Your task to perform on an android device: empty trash in google photos Image 0: 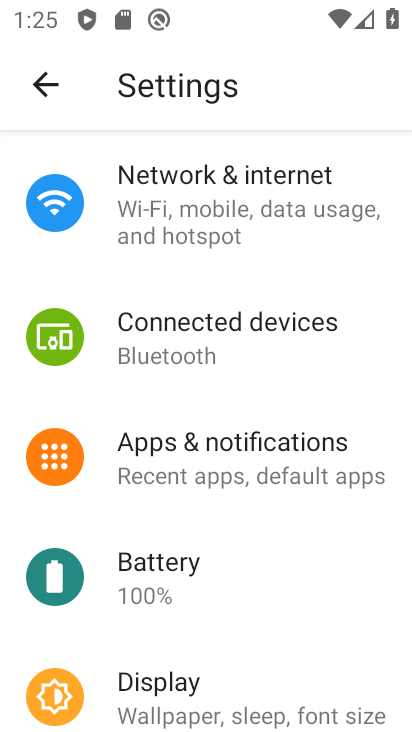
Step 0: press home button
Your task to perform on an android device: empty trash in google photos Image 1: 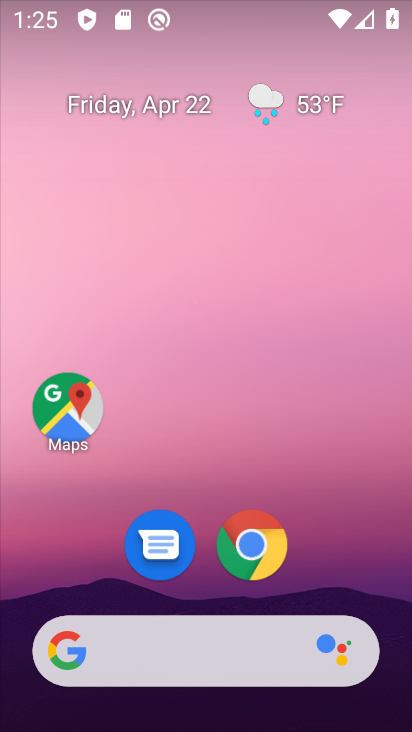
Step 1: drag from (320, 516) to (265, 32)
Your task to perform on an android device: empty trash in google photos Image 2: 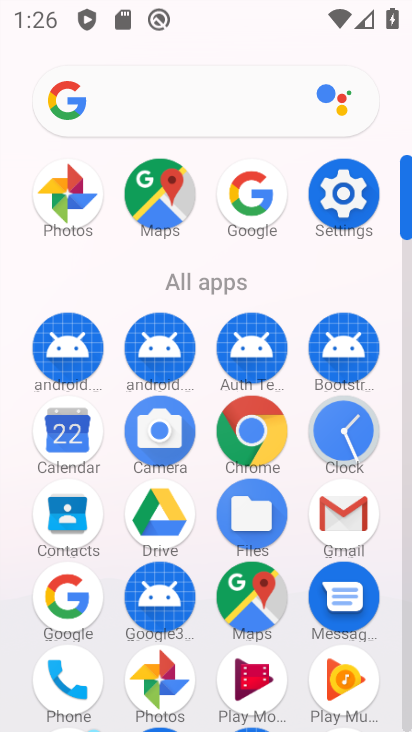
Step 2: click (67, 193)
Your task to perform on an android device: empty trash in google photos Image 3: 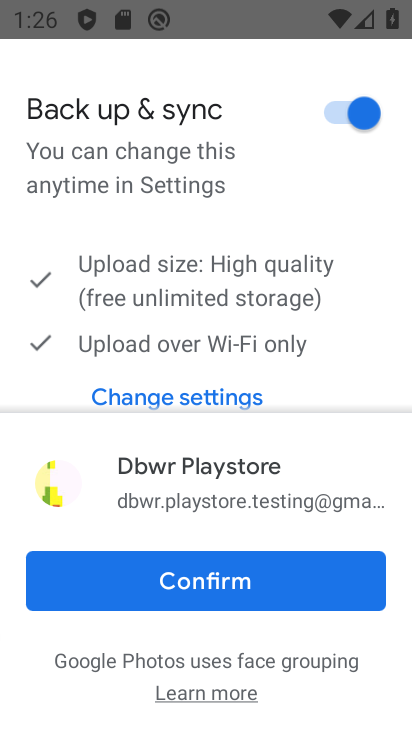
Step 3: click (232, 578)
Your task to perform on an android device: empty trash in google photos Image 4: 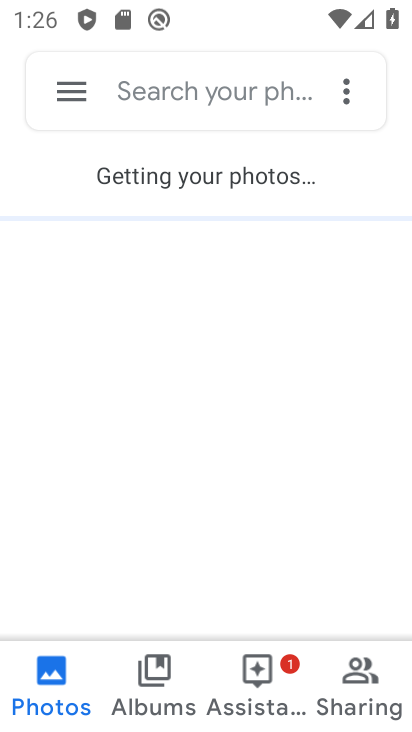
Step 4: click (64, 94)
Your task to perform on an android device: empty trash in google photos Image 5: 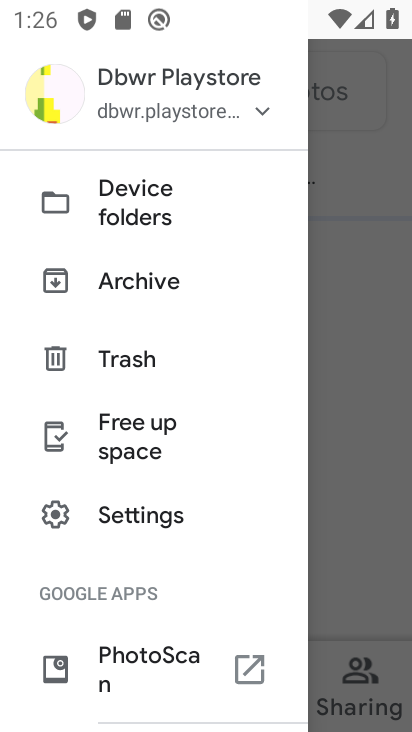
Step 5: click (133, 357)
Your task to perform on an android device: empty trash in google photos Image 6: 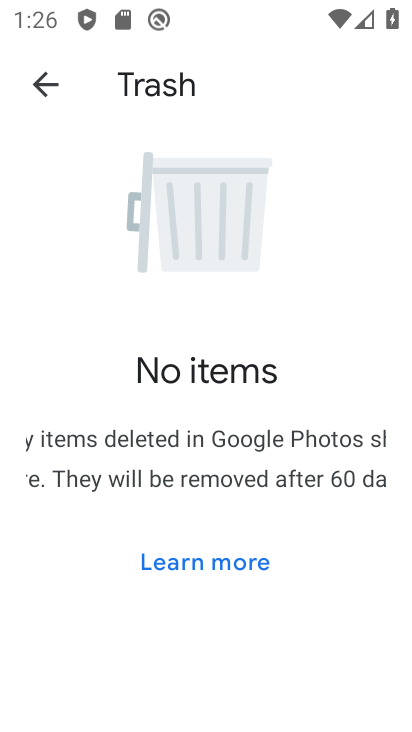
Step 6: task complete